Your task to perform on an android device: remove spam from my inbox in the gmail app Image 0: 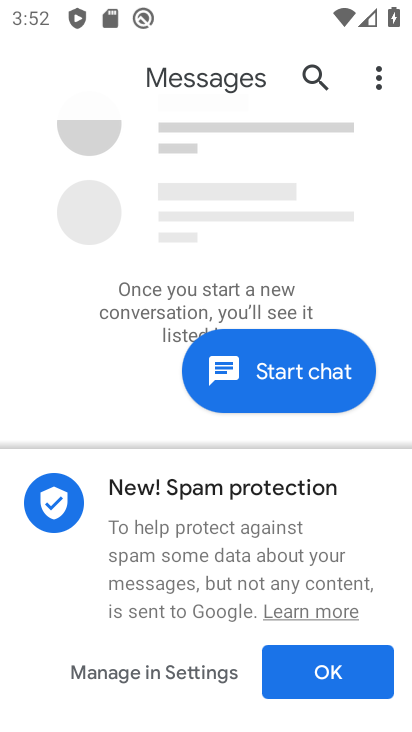
Step 0: press home button
Your task to perform on an android device: remove spam from my inbox in the gmail app Image 1: 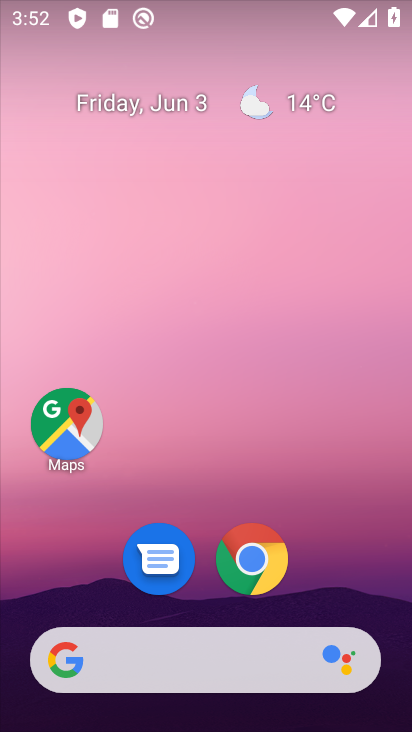
Step 1: drag from (334, 590) to (301, 90)
Your task to perform on an android device: remove spam from my inbox in the gmail app Image 2: 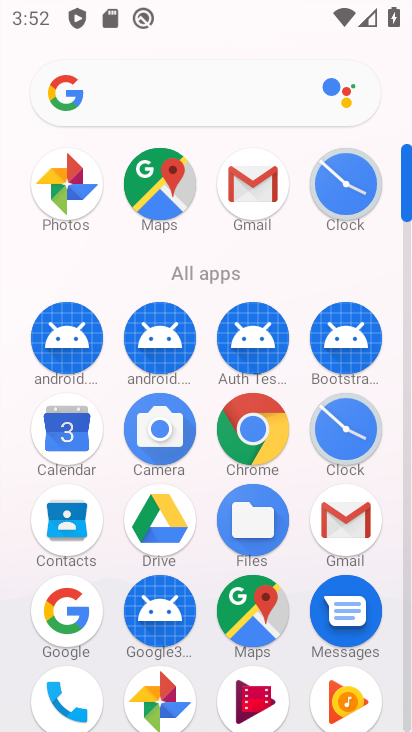
Step 2: click (341, 514)
Your task to perform on an android device: remove spam from my inbox in the gmail app Image 3: 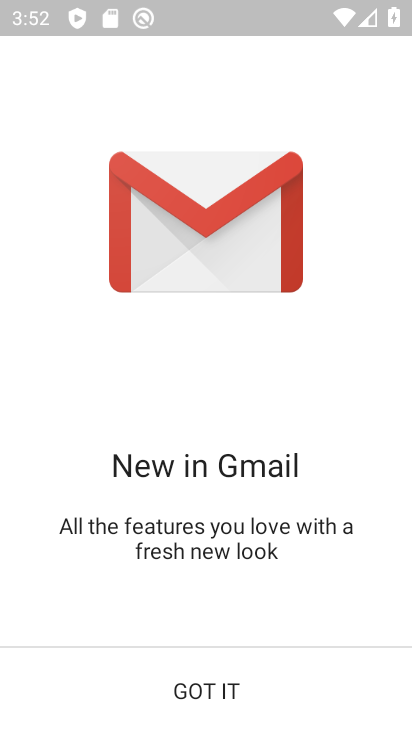
Step 3: click (204, 699)
Your task to perform on an android device: remove spam from my inbox in the gmail app Image 4: 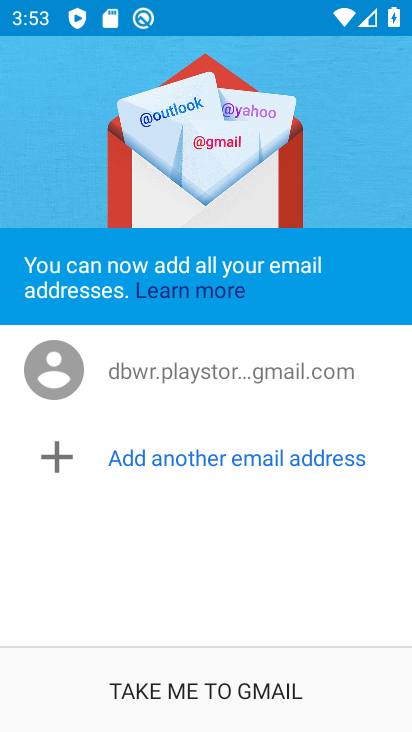
Step 4: click (211, 695)
Your task to perform on an android device: remove spam from my inbox in the gmail app Image 5: 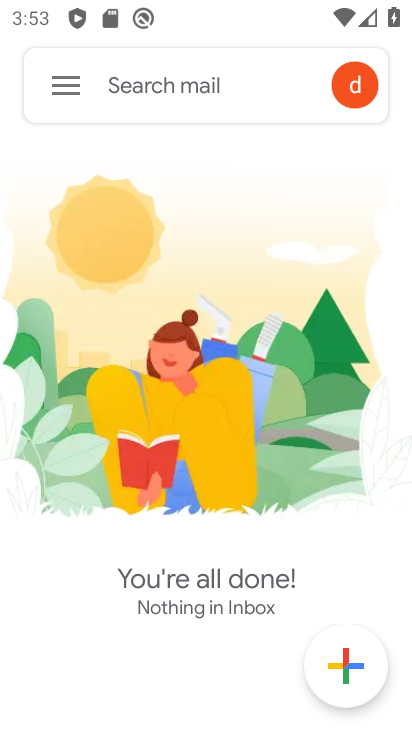
Step 5: click (58, 76)
Your task to perform on an android device: remove spam from my inbox in the gmail app Image 6: 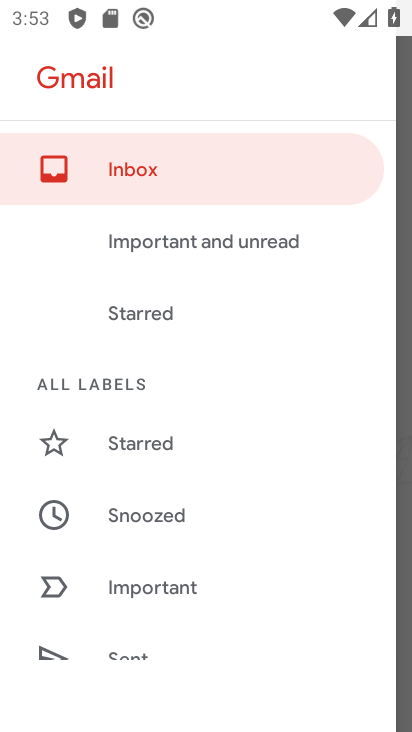
Step 6: drag from (269, 592) to (275, 255)
Your task to perform on an android device: remove spam from my inbox in the gmail app Image 7: 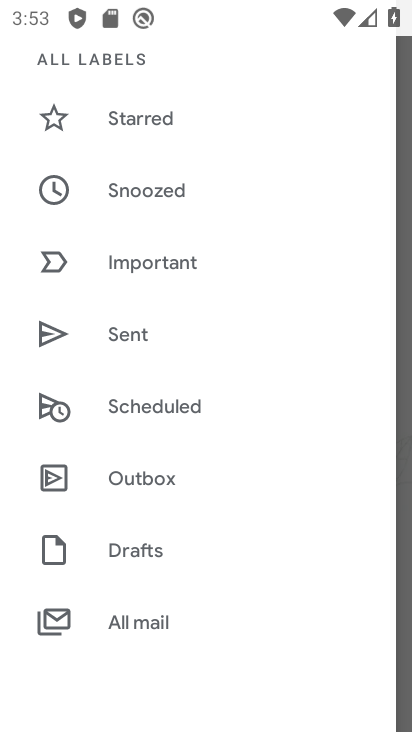
Step 7: drag from (224, 564) to (240, 289)
Your task to perform on an android device: remove spam from my inbox in the gmail app Image 8: 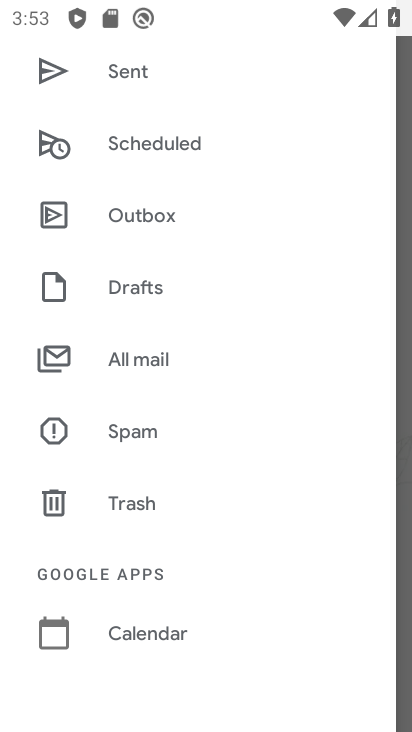
Step 8: click (123, 422)
Your task to perform on an android device: remove spam from my inbox in the gmail app Image 9: 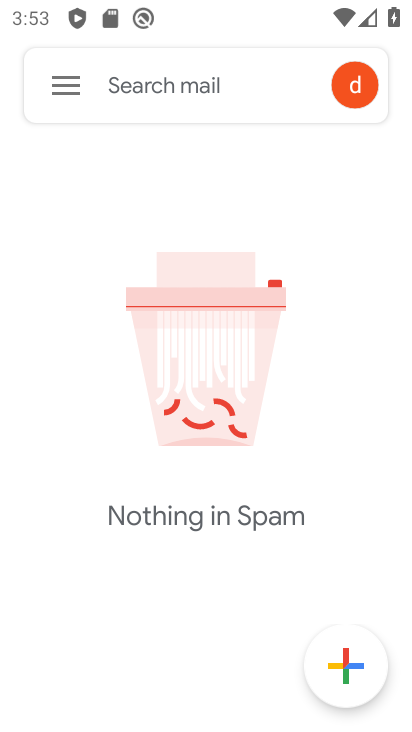
Step 9: task complete